Your task to perform on an android device: show emergency info Image 0: 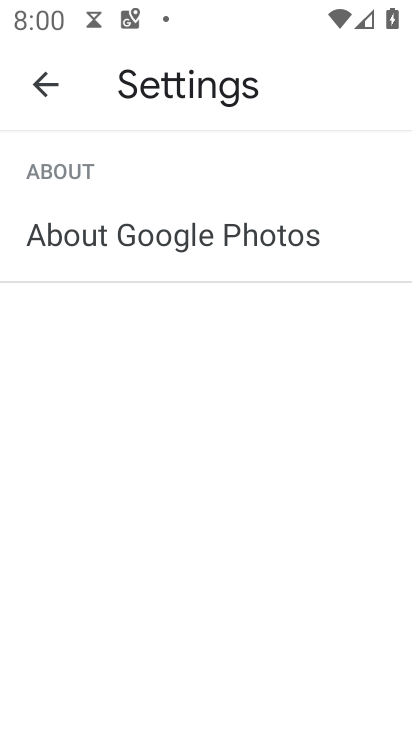
Step 0: press home button
Your task to perform on an android device: show emergency info Image 1: 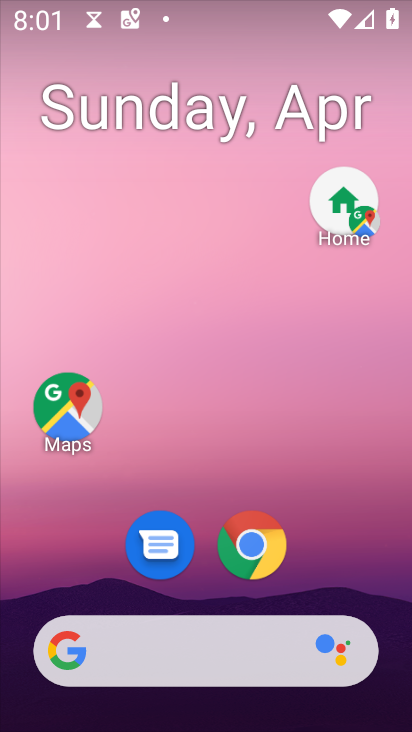
Step 1: drag from (310, 479) to (274, 194)
Your task to perform on an android device: show emergency info Image 2: 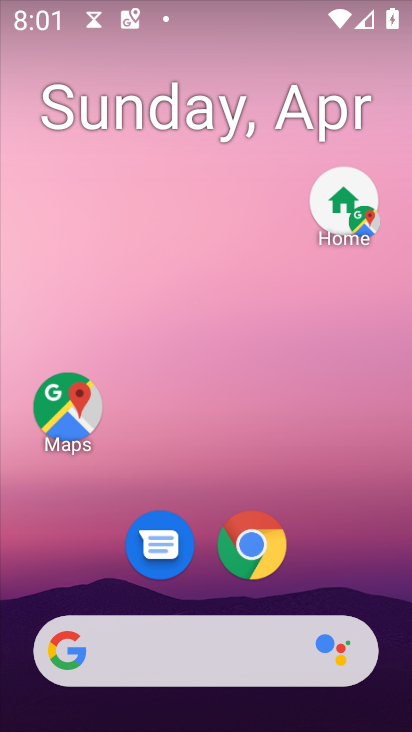
Step 2: drag from (291, 554) to (264, 136)
Your task to perform on an android device: show emergency info Image 3: 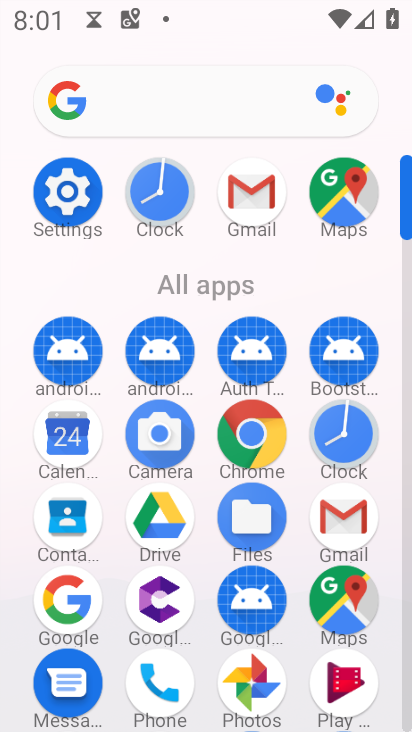
Step 3: click (49, 188)
Your task to perform on an android device: show emergency info Image 4: 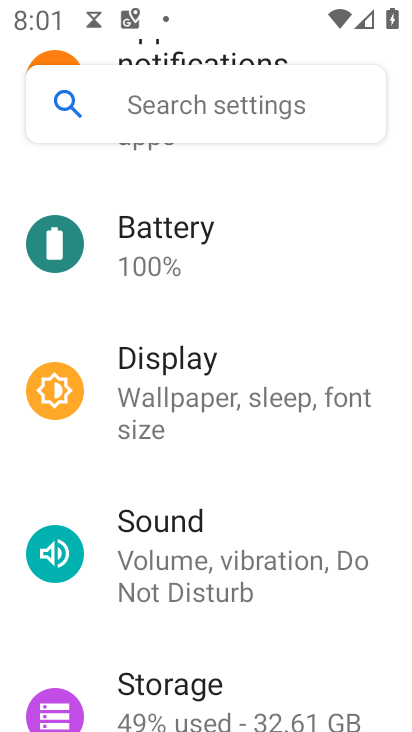
Step 4: drag from (286, 656) to (226, 160)
Your task to perform on an android device: show emergency info Image 5: 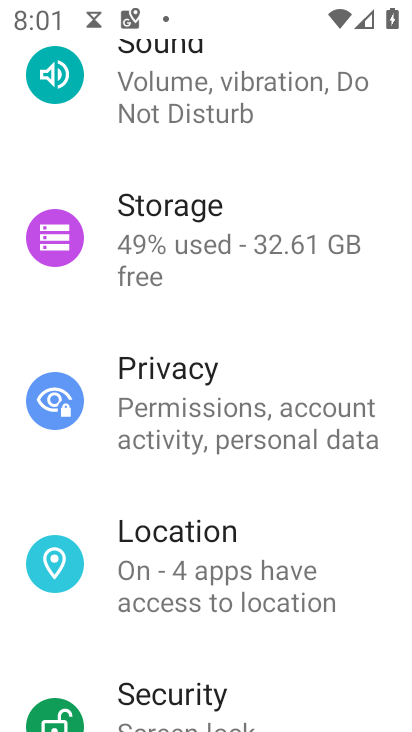
Step 5: drag from (248, 639) to (210, 102)
Your task to perform on an android device: show emergency info Image 6: 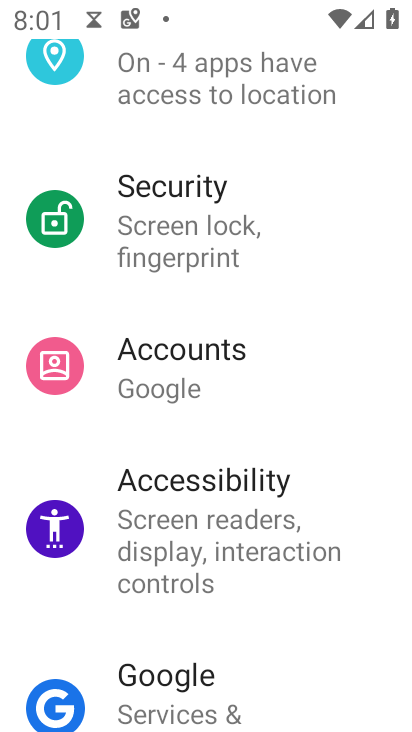
Step 6: drag from (253, 621) to (249, 112)
Your task to perform on an android device: show emergency info Image 7: 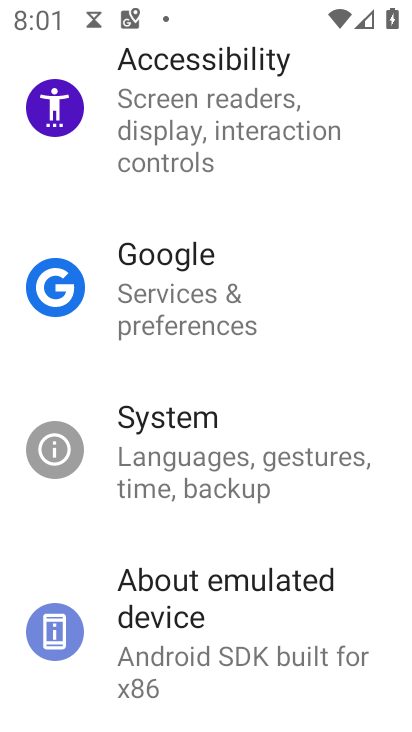
Step 7: click (219, 617)
Your task to perform on an android device: show emergency info Image 8: 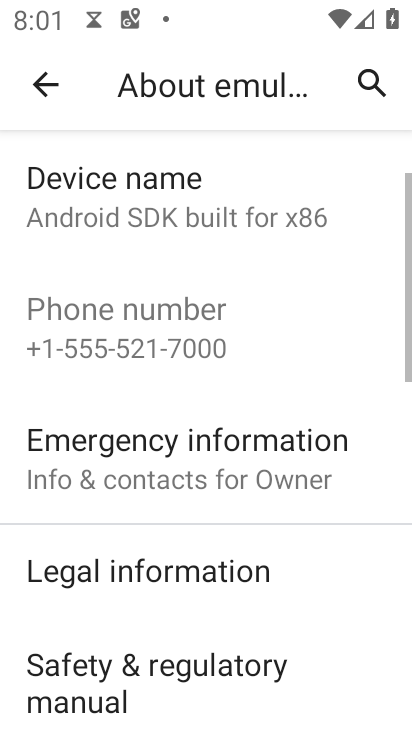
Step 8: click (241, 465)
Your task to perform on an android device: show emergency info Image 9: 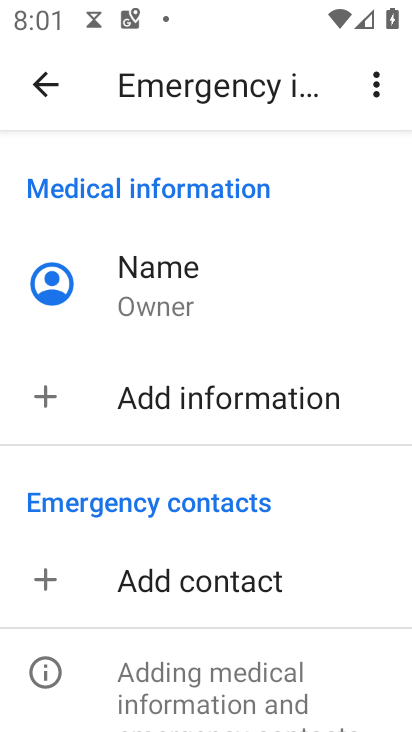
Step 9: task complete